Your task to perform on an android device: open app "Microsoft Authenticator" Image 0: 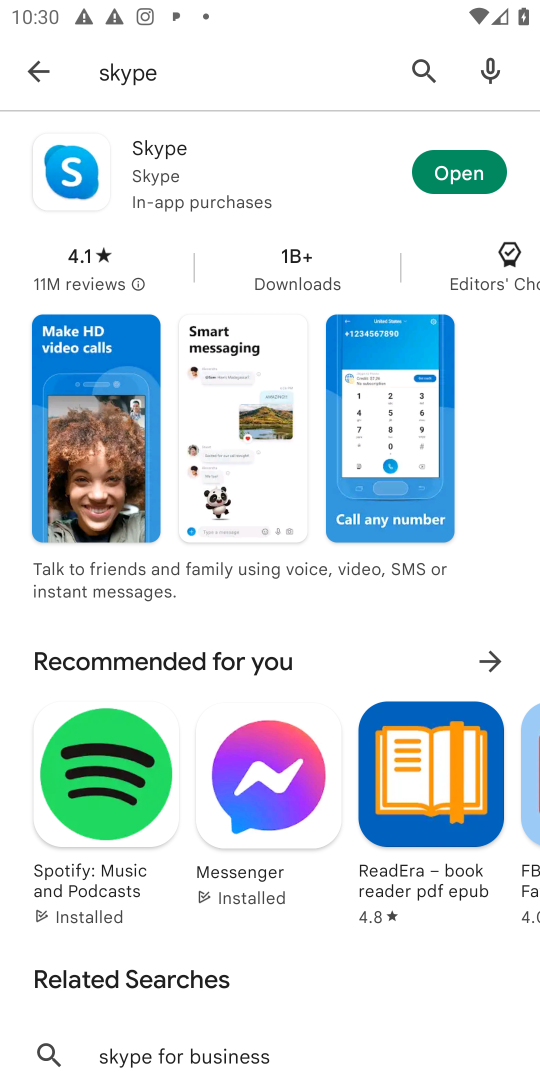
Step 0: press home button
Your task to perform on an android device: open app "Microsoft Authenticator" Image 1: 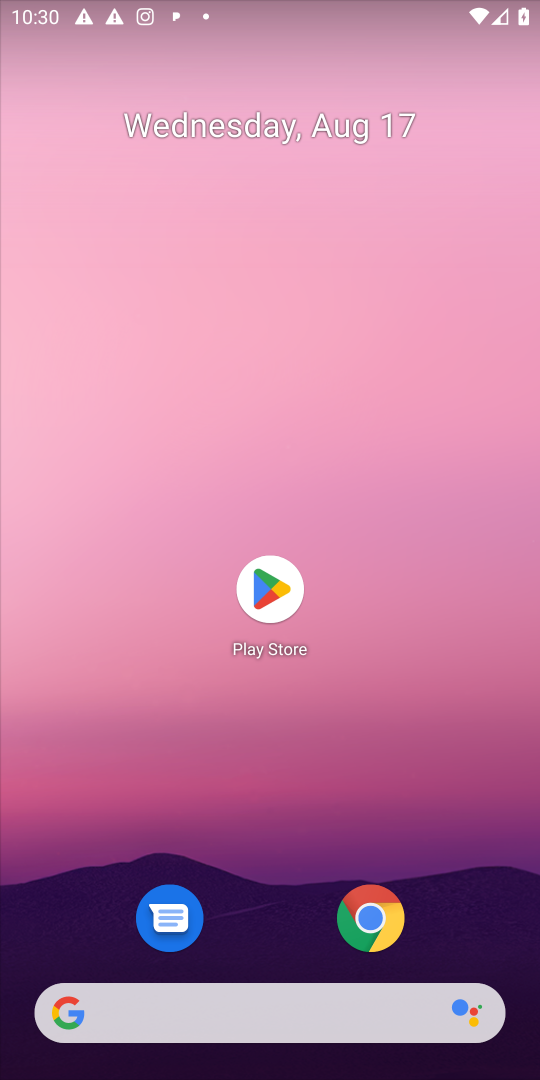
Step 1: click (268, 579)
Your task to perform on an android device: open app "Microsoft Authenticator" Image 2: 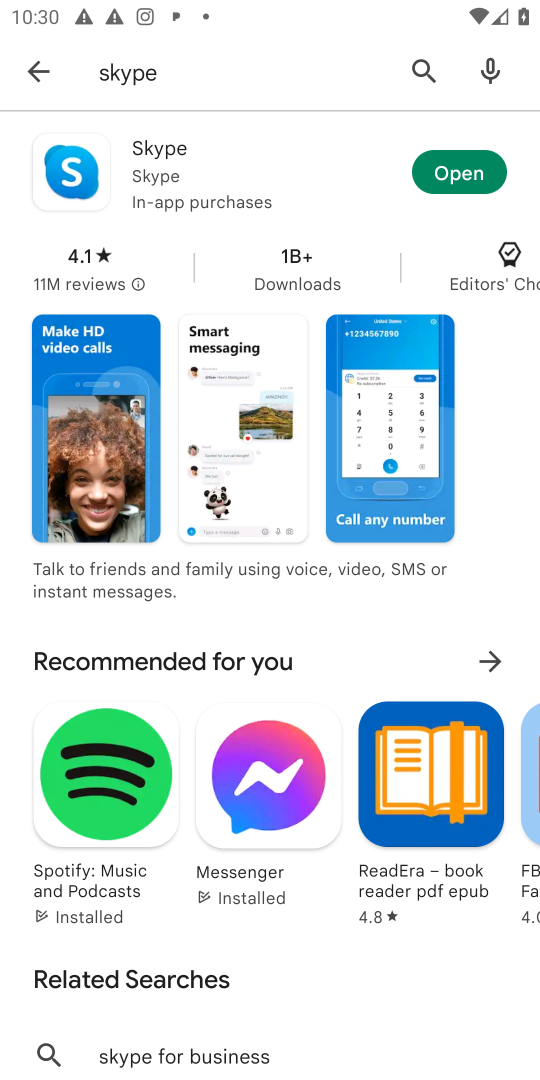
Step 2: click (422, 67)
Your task to perform on an android device: open app "Microsoft Authenticator" Image 3: 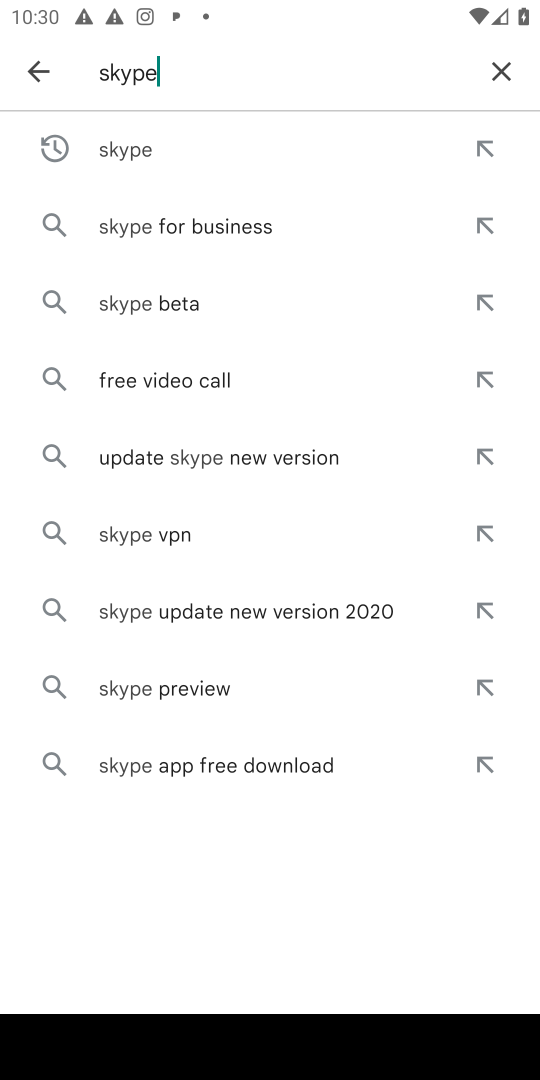
Step 3: click (493, 72)
Your task to perform on an android device: open app "Microsoft Authenticator" Image 4: 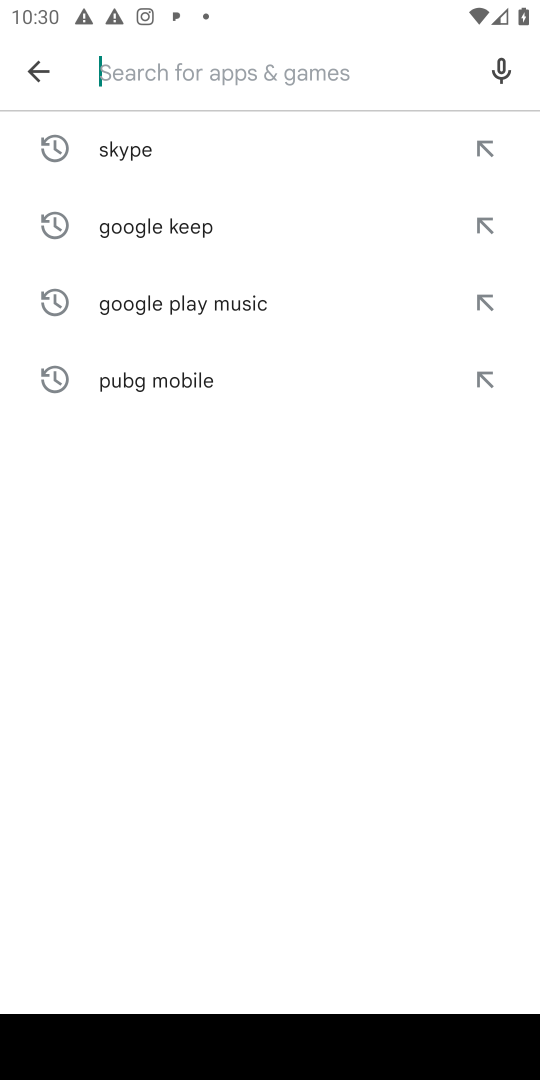
Step 4: type "Microsoft Authenticator"
Your task to perform on an android device: open app "Microsoft Authenticator" Image 5: 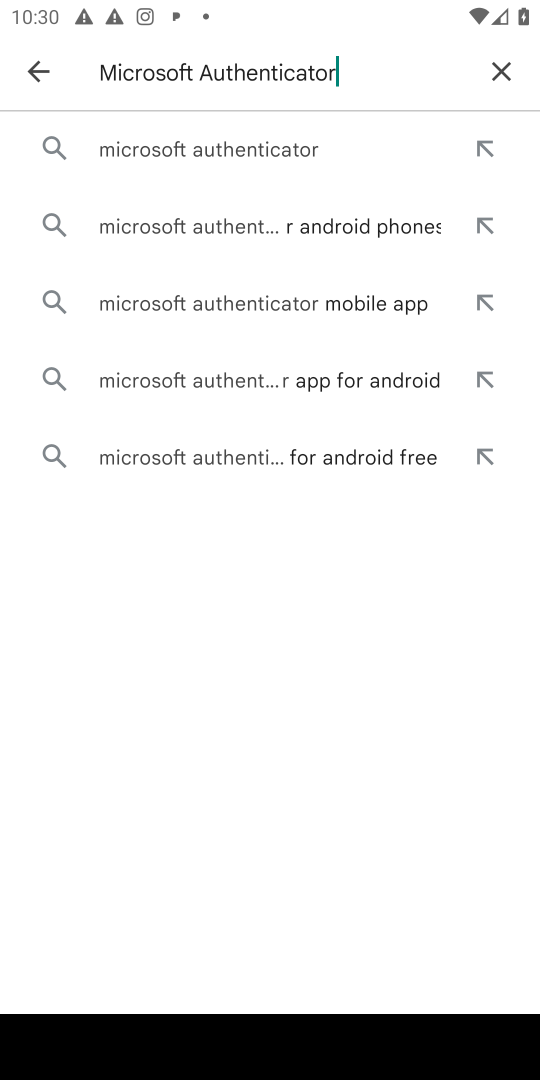
Step 5: click (205, 151)
Your task to perform on an android device: open app "Microsoft Authenticator" Image 6: 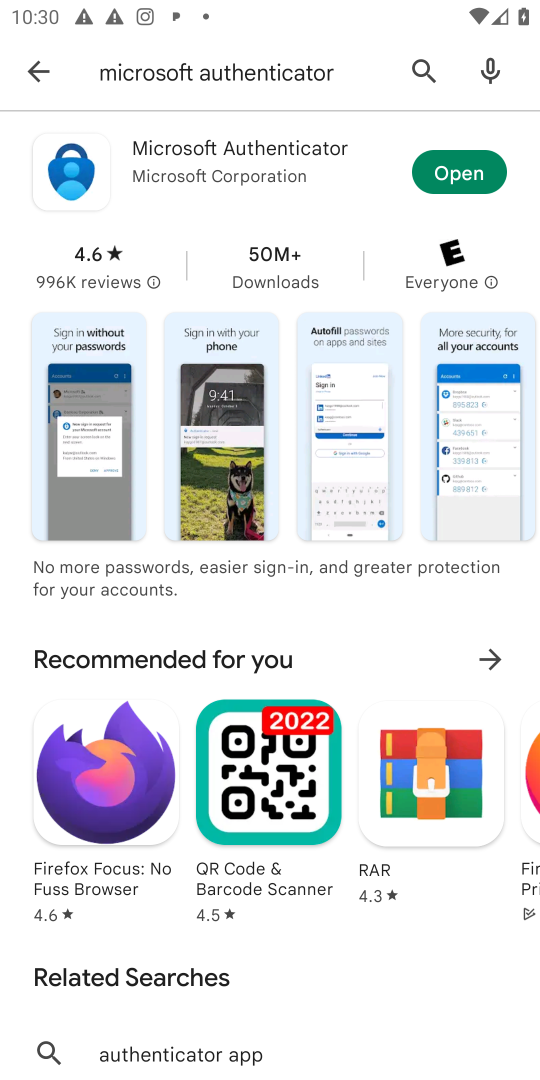
Step 6: click (457, 161)
Your task to perform on an android device: open app "Microsoft Authenticator" Image 7: 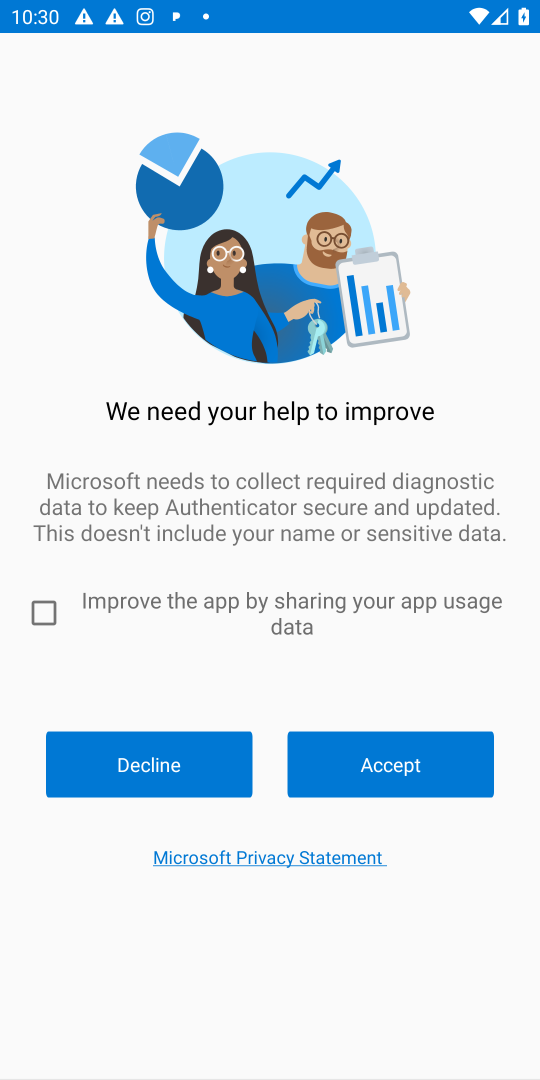
Step 7: task complete